Your task to perform on an android device: show emergency info Image 0: 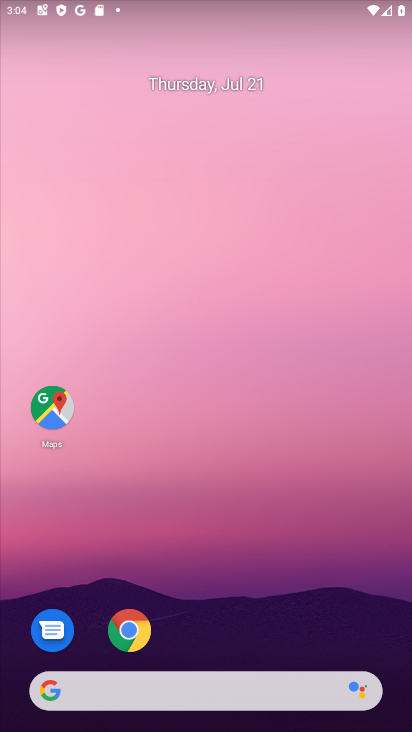
Step 0: drag from (317, 563) to (198, 3)
Your task to perform on an android device: show emergency info Image 1: 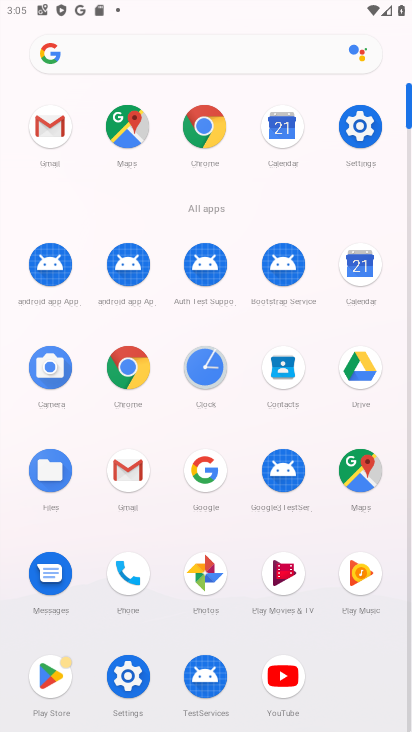
Step 1: click (366, 129)
Your task to perform on an android device: show emergency info Image 2: 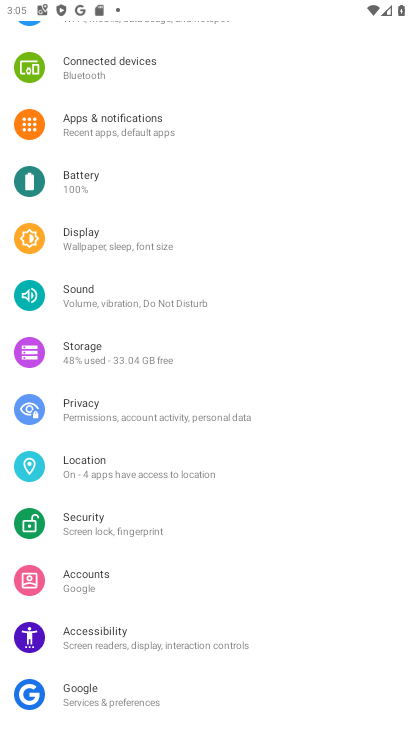
Step 2: drag from (221, 638) to (121, 134)
Your task to perform on an android device: show emergency info Image 3: 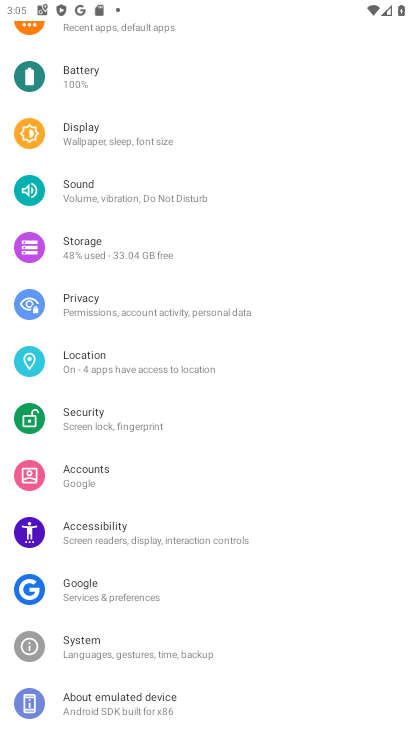
Step 3: click (128, 705)
Your task to perform on an android device: show emergency info Image 4: 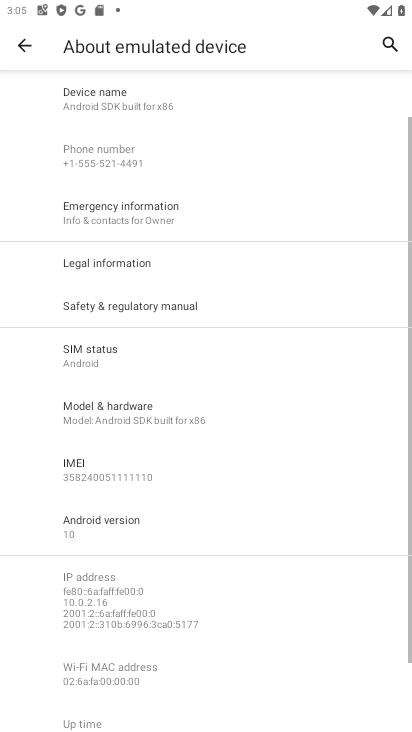
Step 4: click (98, 217)
Your task to perform on an android device: show emergency info Image 5: 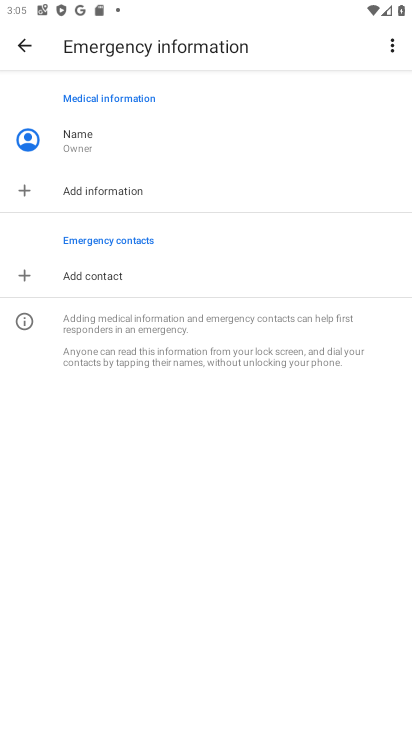
Step 5: task complete